Your task to perform on an android device: open app "Messages" Image 0: 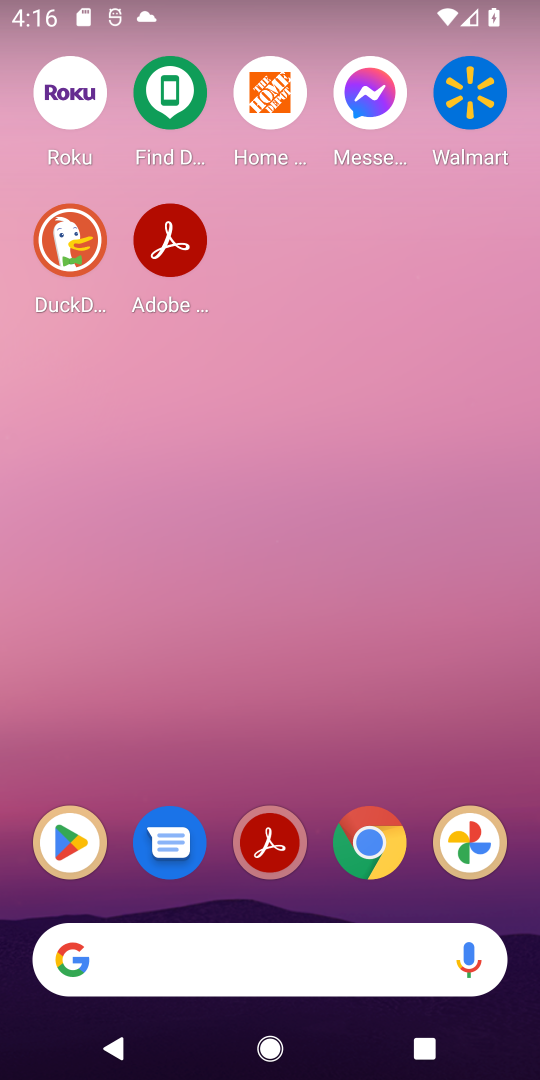
Step 0: drag from (293, 538) to (429, 76)
Your task to perform on an android device: open app "Messages" Image 1: 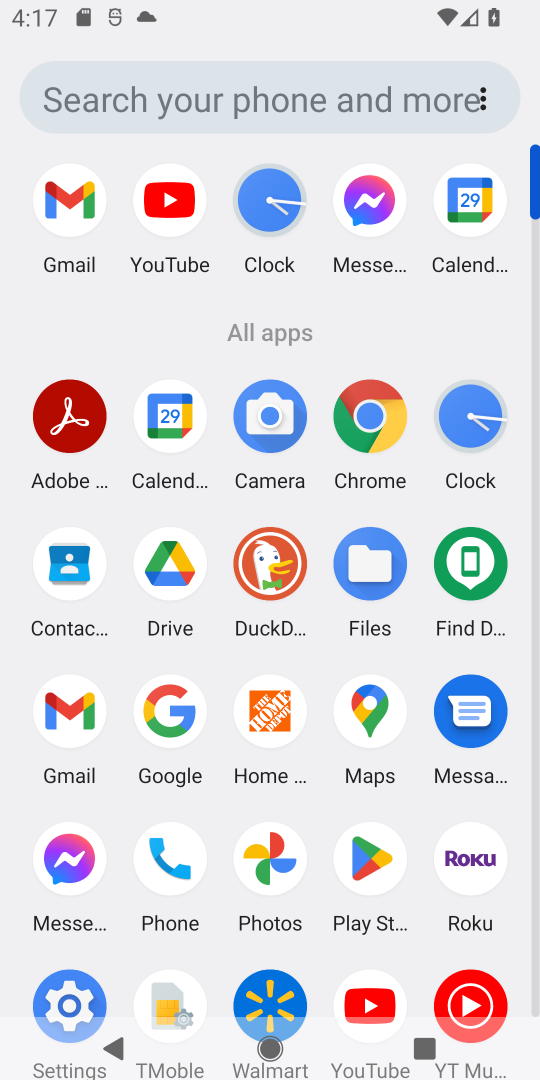
Step 1: drag from (250, 802) to (243, 879)
Your task to perform on an android device: open app "Messages" Image 2: 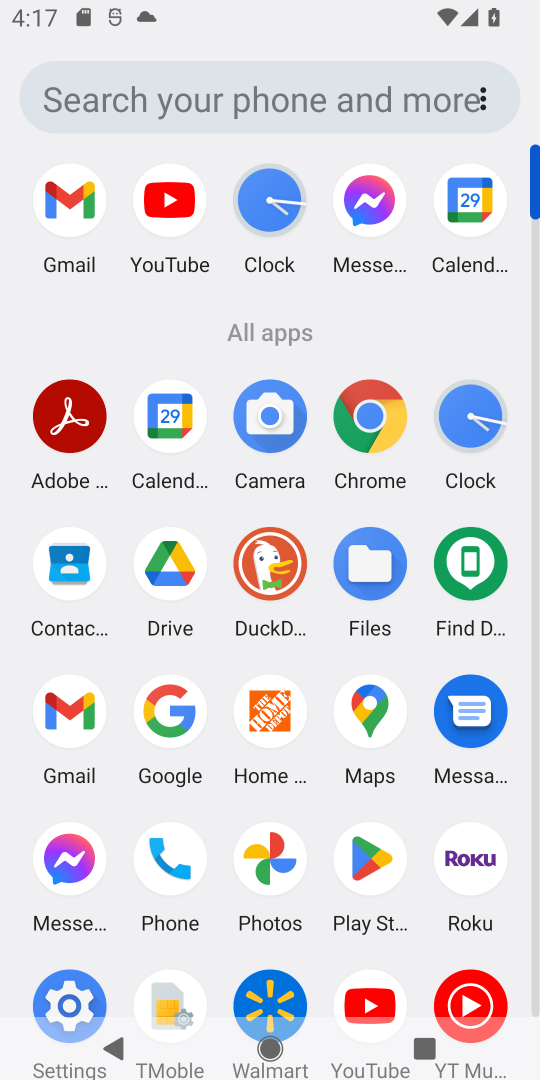
Step 2: click (379, 843)
Your task to perform on an android device: open app "Messages" Image 3: 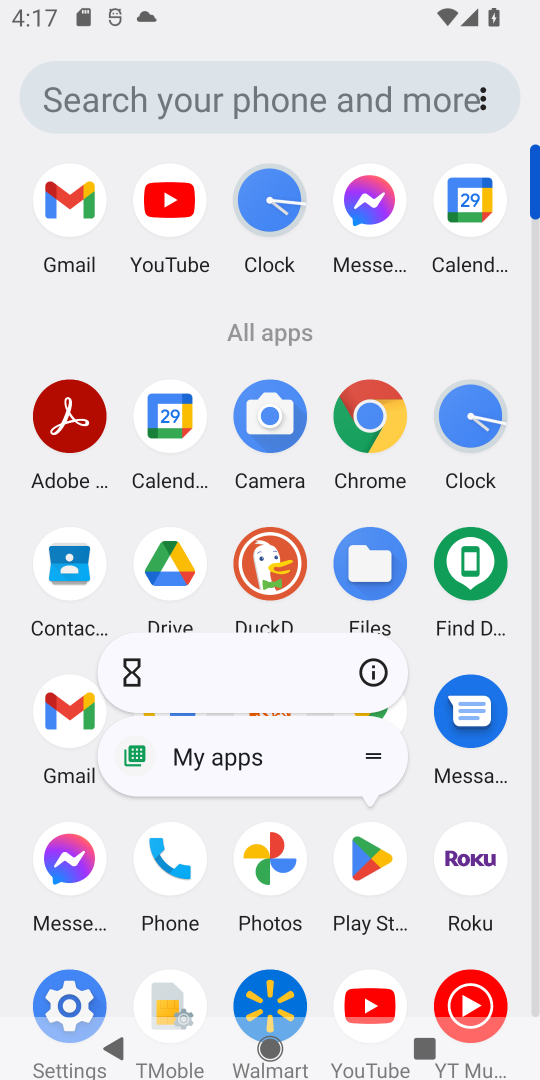
Step 3: click (137, 339)
Your task to perform on an android device: open app "Messages" Image 4: 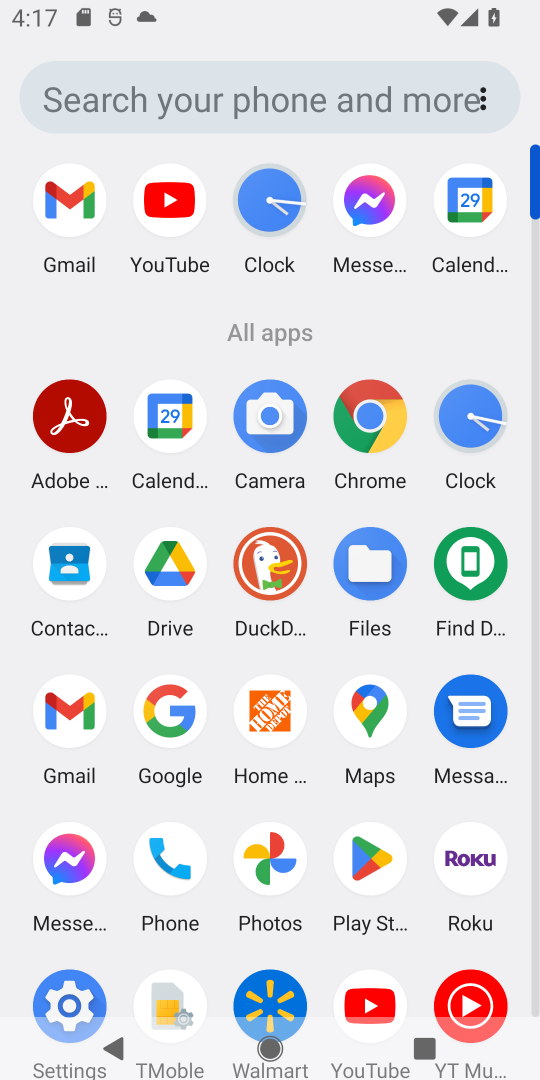
Step 4: click (370, 853)
Your task to perform on an android device: open app "Messages" Image 5: 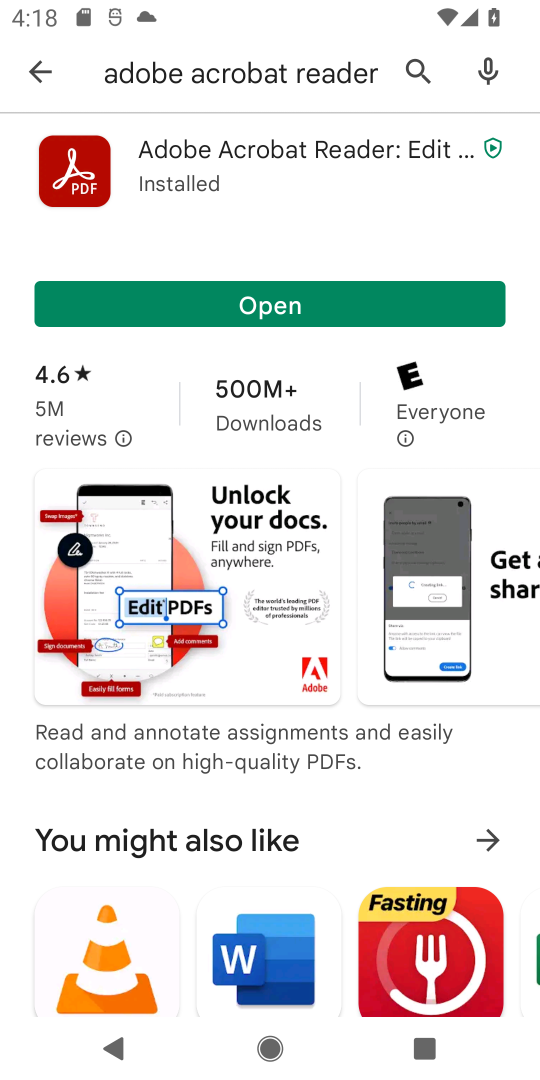
Step 5: click (395, 71)
Your task to perform on an android device: open app "Messages" Image 6: 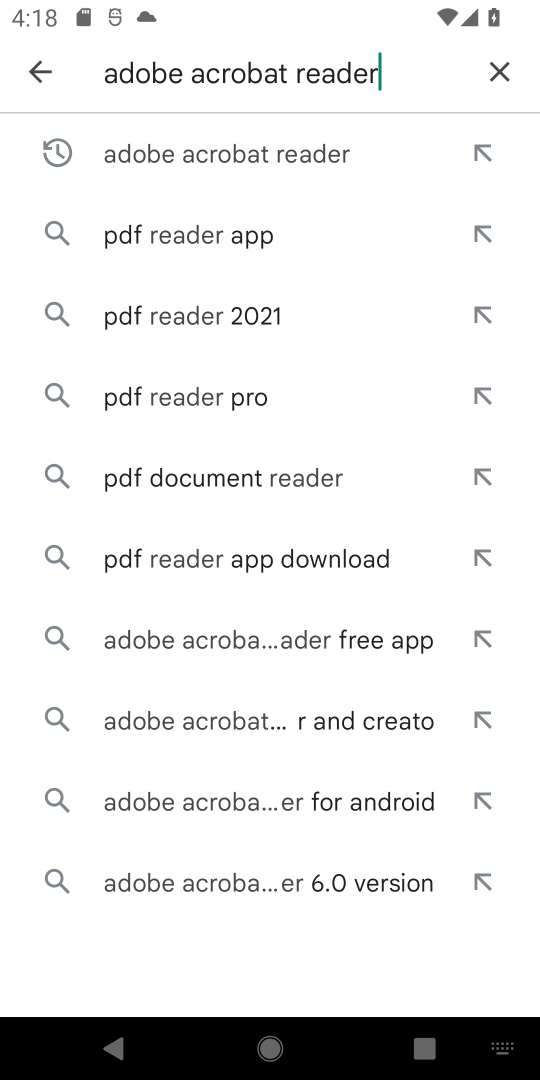
Step 6: click (512, 57)
Your task to perform on an android device: open app "Messages" Image 7: 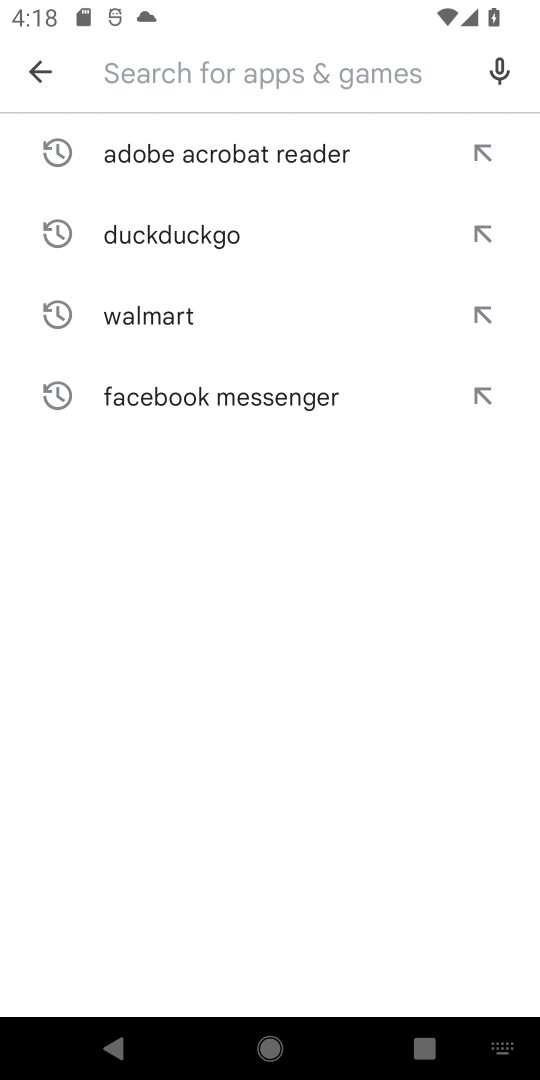
Step 7: type "messages"
Your task to perform on an android device: open app "Messages" Image 8: 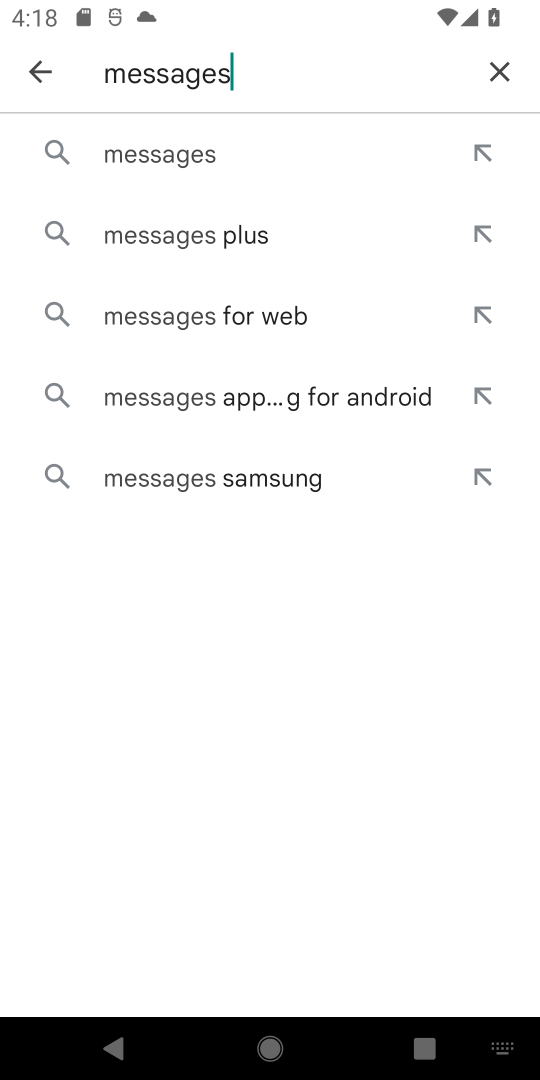
Step 8: click (138, 137)
Your task to perform on an android device: open app "Messages" Image 9: 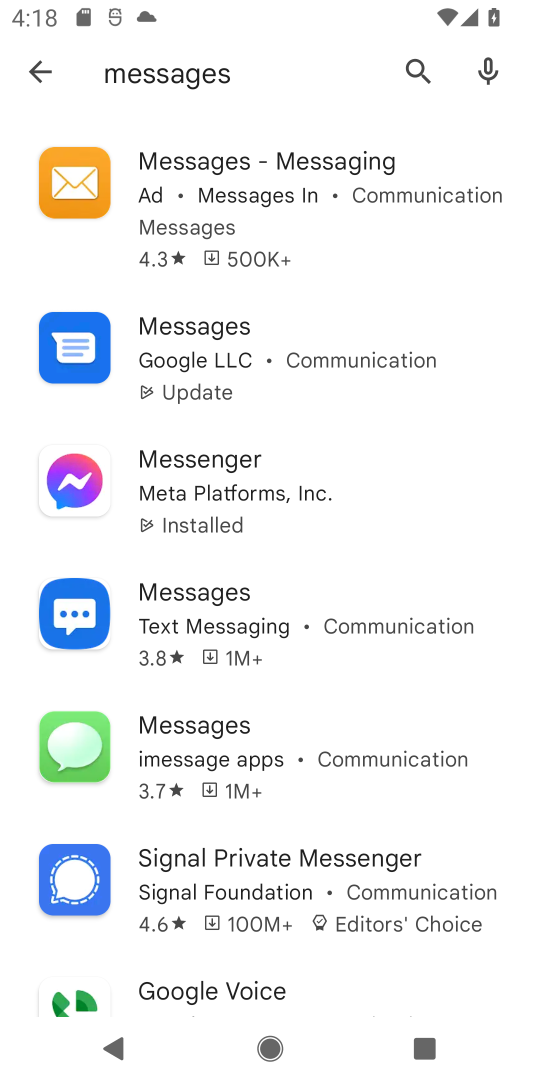
Step 9: click (202, 340)
Your task to perform on an android device: open app "Messages" Image 10: 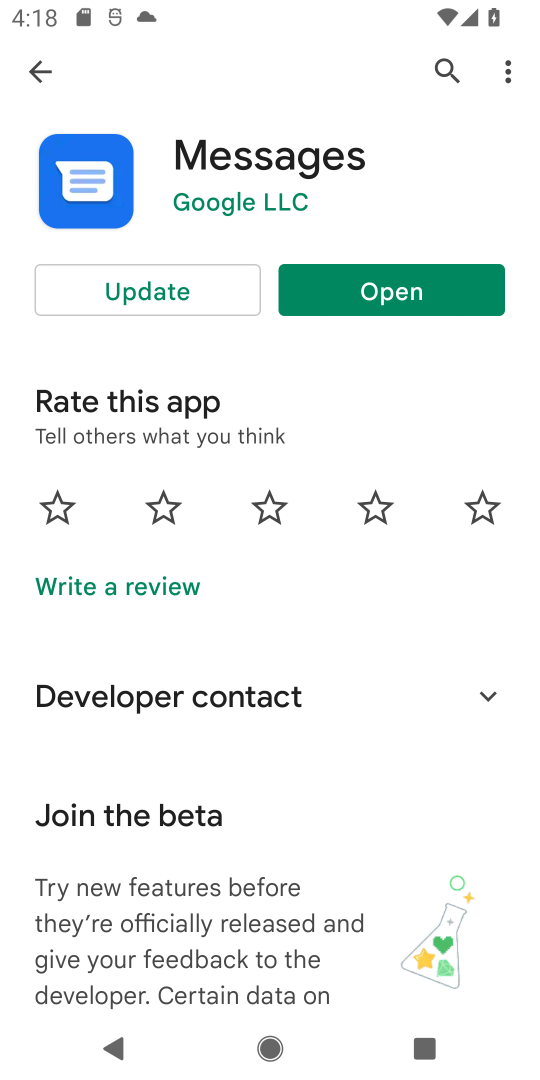
Step 10: click (353, 309)
Your task to perform on an android device: open app "Messages" Image 11: 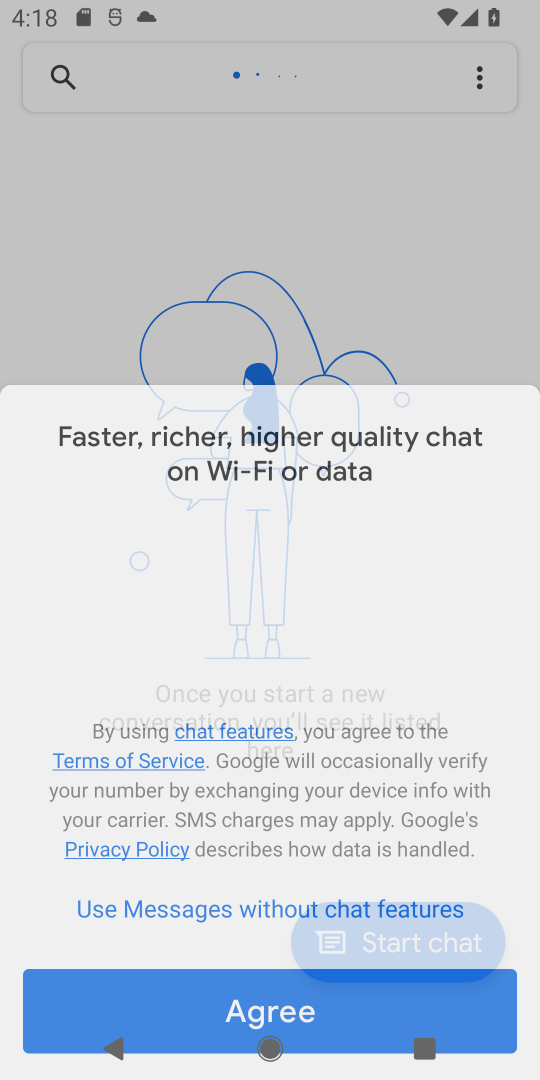
Step 11: task complete